Your task to perform on an android device: toggle airplane mode Image 0: 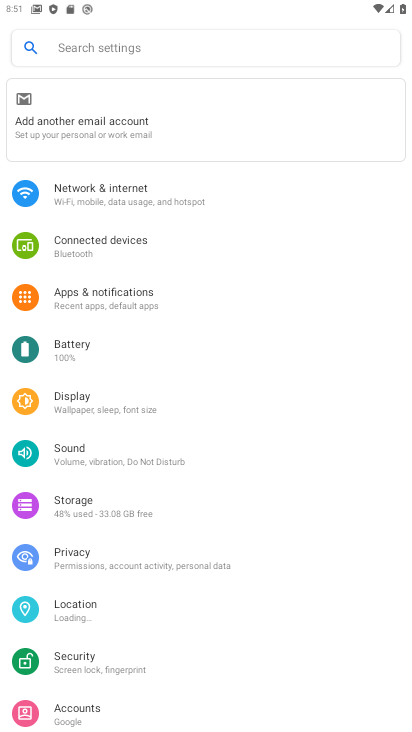
Step 0: press home button
Your task to perform on an android device: toggle airplane mode Image 1: 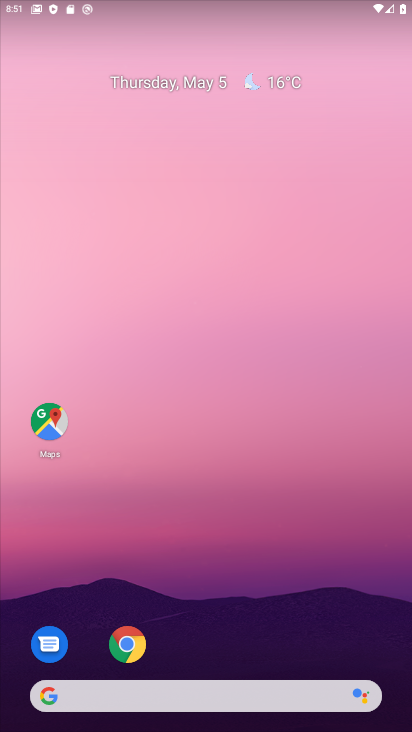
Step 1: drag from (324, 634) to (335, 95)
Your task to perform on an android device: toggle airplane mode Image 2: 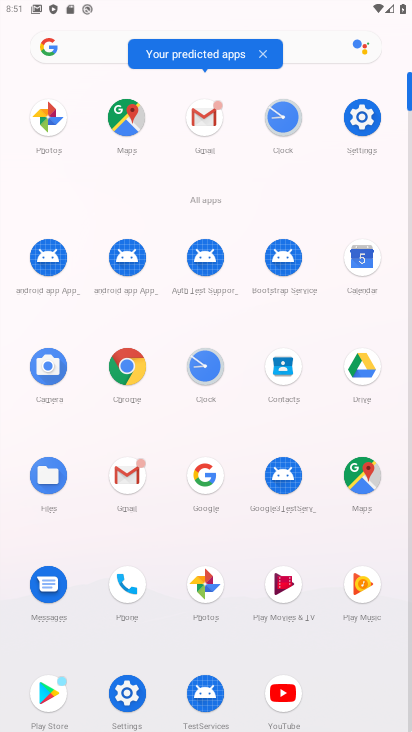
Step 2: click (369, 128)
Your task to perform on an android device: toggle airplane mode Image 3: 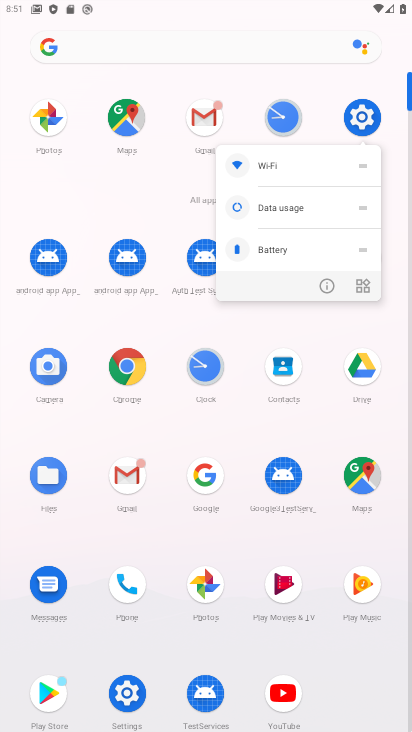
Step 3: click (358, 114)
Your task to perform on an android device: toggle airplane mode Image 4: 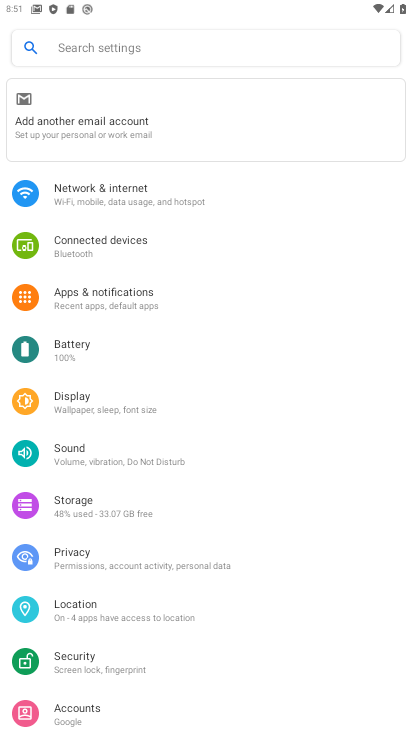
Step 4: click (110, 205)
Your task to perform on an android device: toggle airplane mode Image 5: 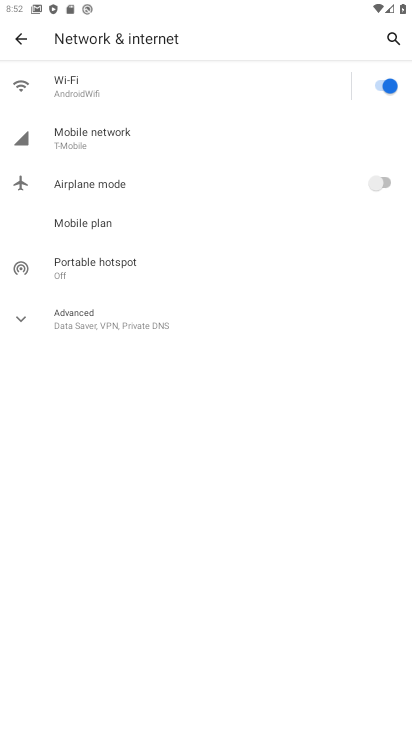
Step 5: click (148, 186)
Your task to perform on an android device: toggle airplane mode Image 6: 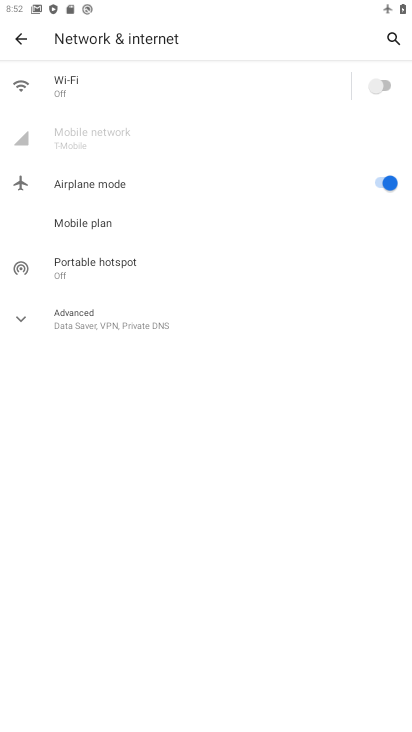
Step 6: task complete